Your task to perform on an android device: Go to internet settings Image 0: 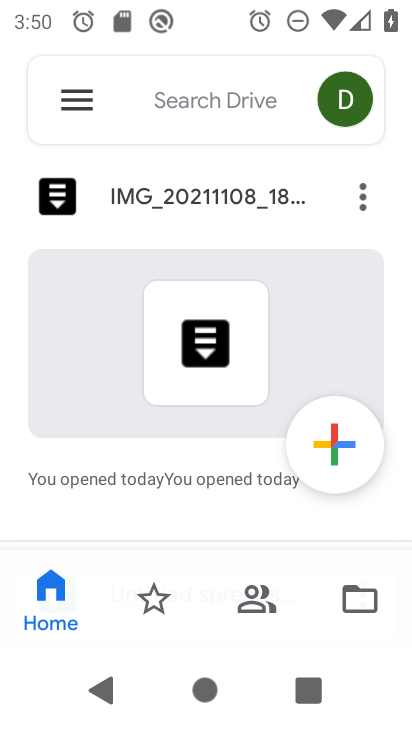
Step 0: press home button
Your task to perform on an android device: Go to internet settings Image 1: 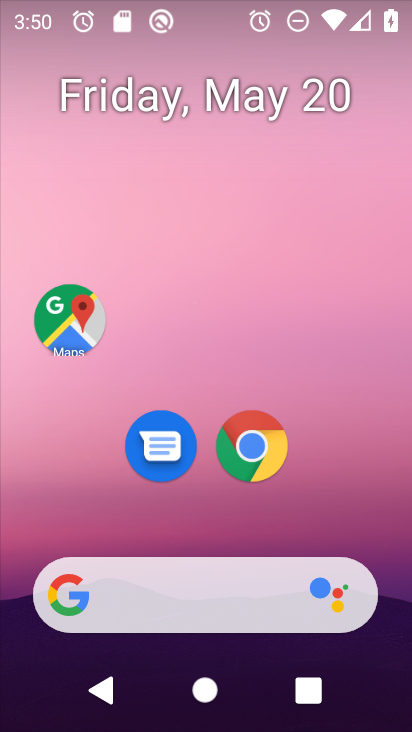
Step 1: drag from (344, 546) to (363, 20)
Your task to perform on an android device: Go to internet settings Image 2: 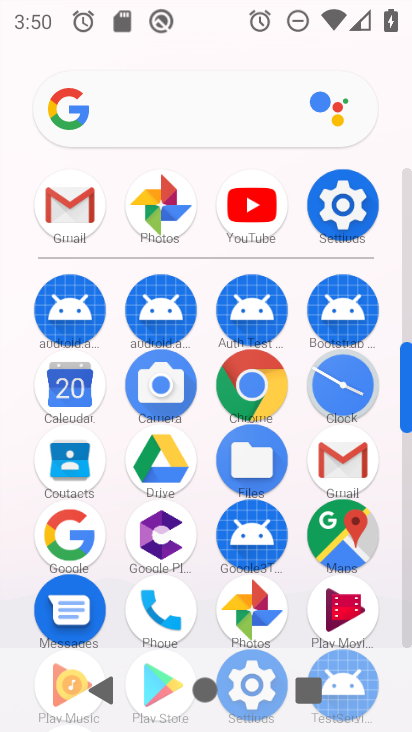
Step 2: click (343, 206)
Your task to perform on an android device: Go to internet settings Image 3: 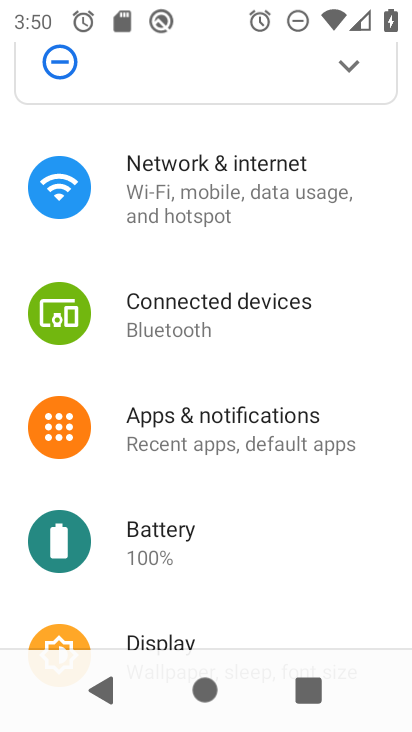
Step 3: click (193, 194)
Your task to perform on an android device: Go to internet settings Image 4: 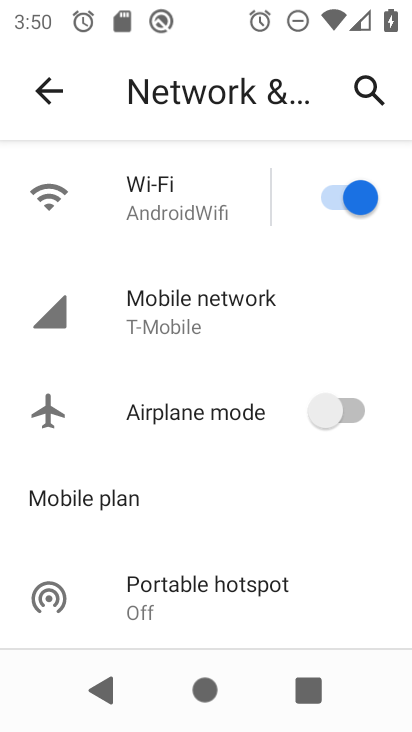
Step 4: task complete